Your task to perform on an android device: open app "Google Pay: Save, Pay, Manage" (install if not already installed) Image 0: 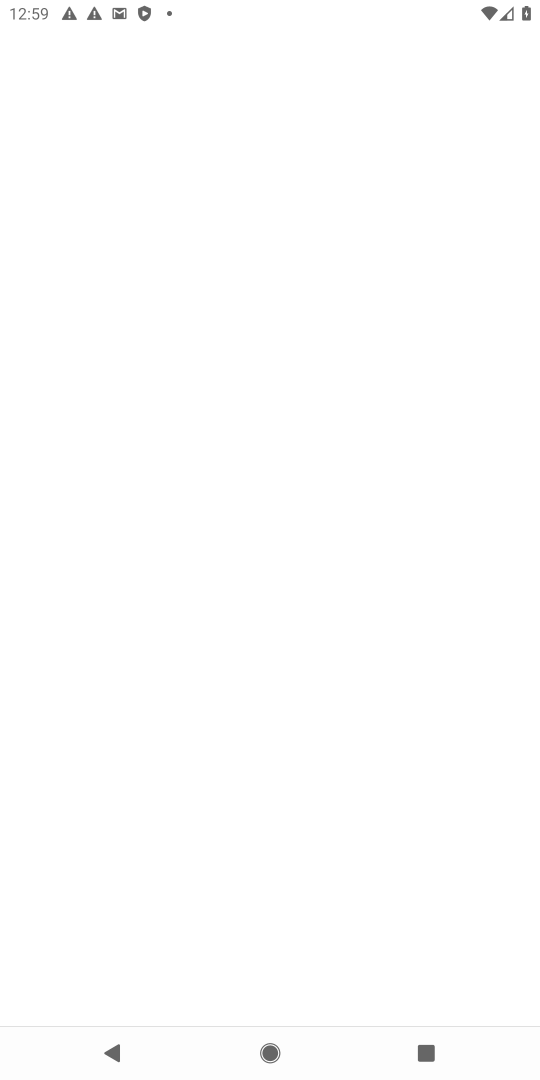
Step 0: press home button
Your task to perform on an android device: open app "Google Pay: Save, Pay, Manage" (install if not already installed) Image 1: 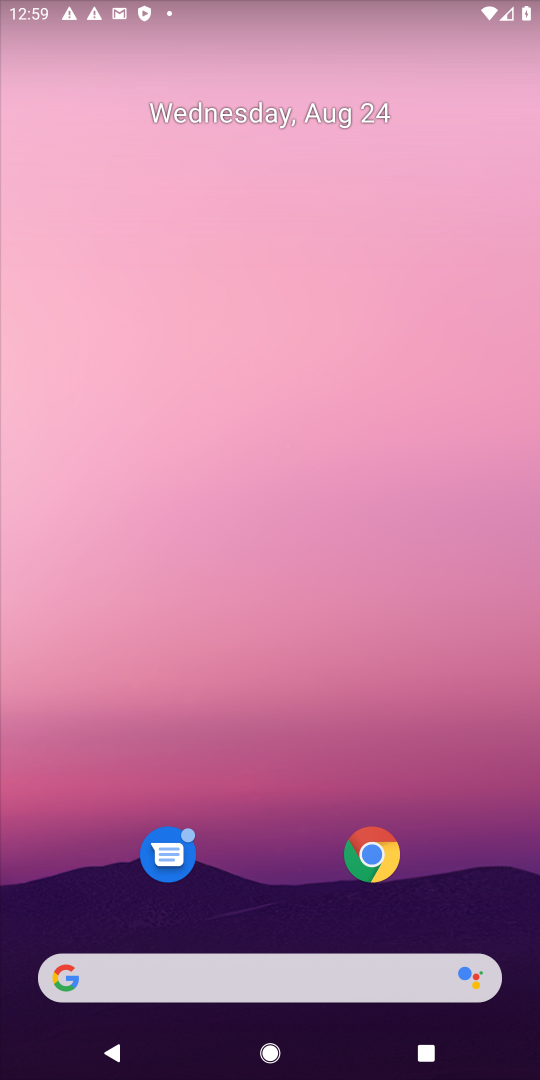
Step 1: drag from (471, 840) to (475, 117)
Your task to perform on an android device: open app "Google Pay: Save, Pay, Manage" (install if not already installed) Image 2: 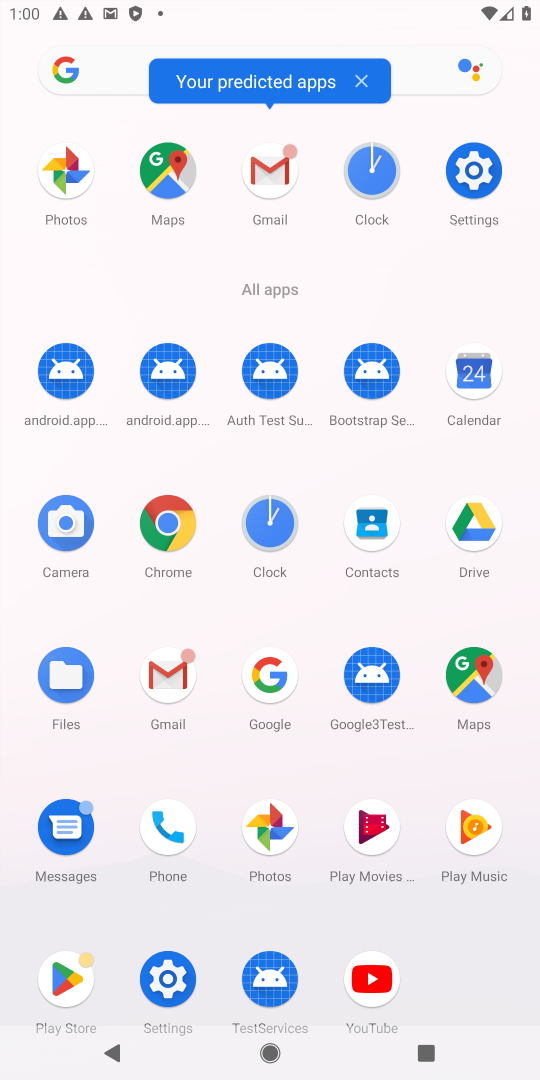
Step 2: click (59, 971)
Your task to perform on an android device: open app "Google Pay: Save, Pay, Manage" (install if not already installed) Image 3: 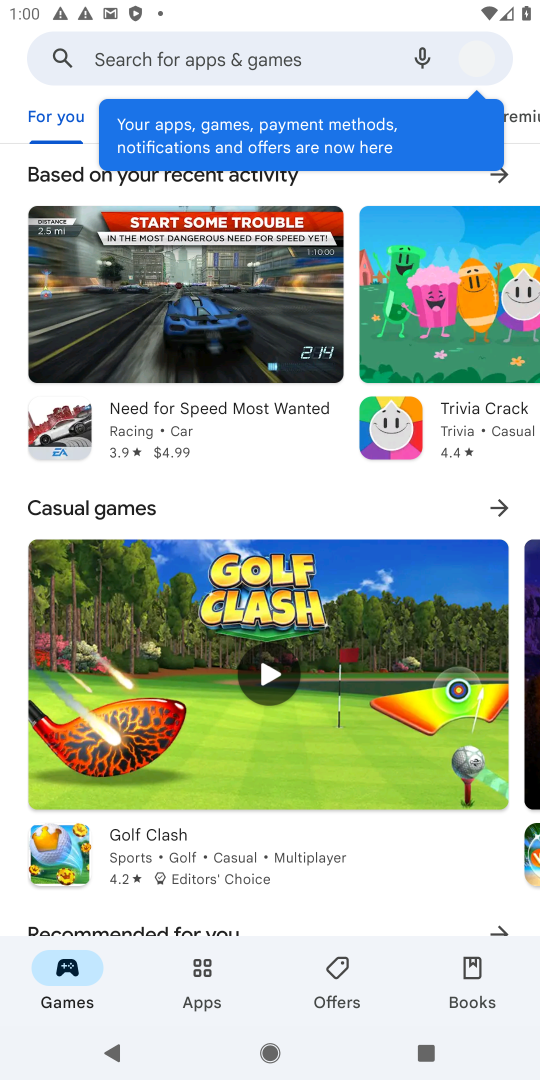
Step 3: click (247, 48)
Your task to perform on an android device: open app "Google Pay: Save, Pay, Manage" (install if not already installed) Image 4: 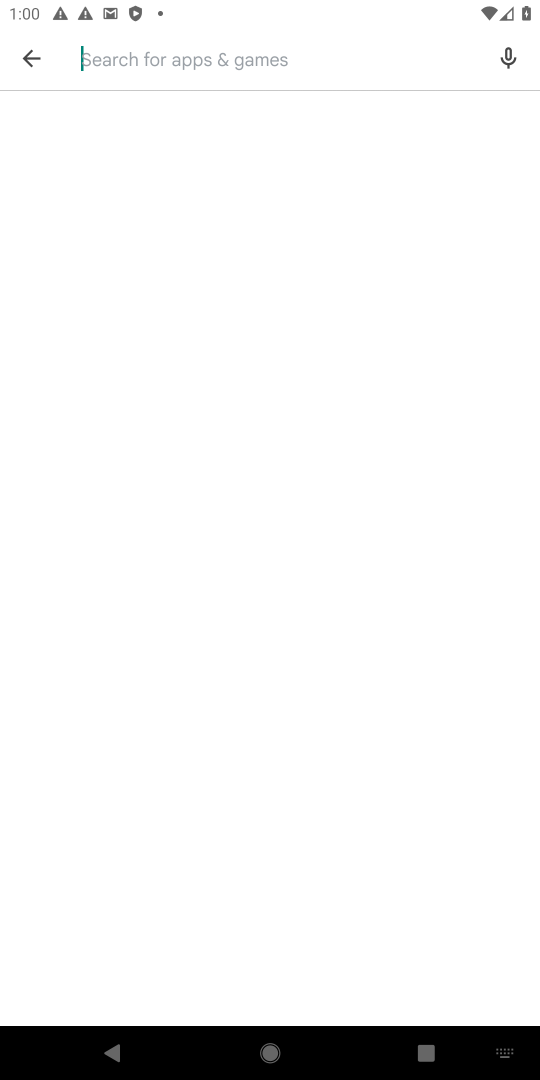
Step 4: type "Google Pay: Save, Pay, Manage"
Your task to perform on an android device: open app "Google Pay: Save, Pay, Manage" (install if not already installed) Image 5: 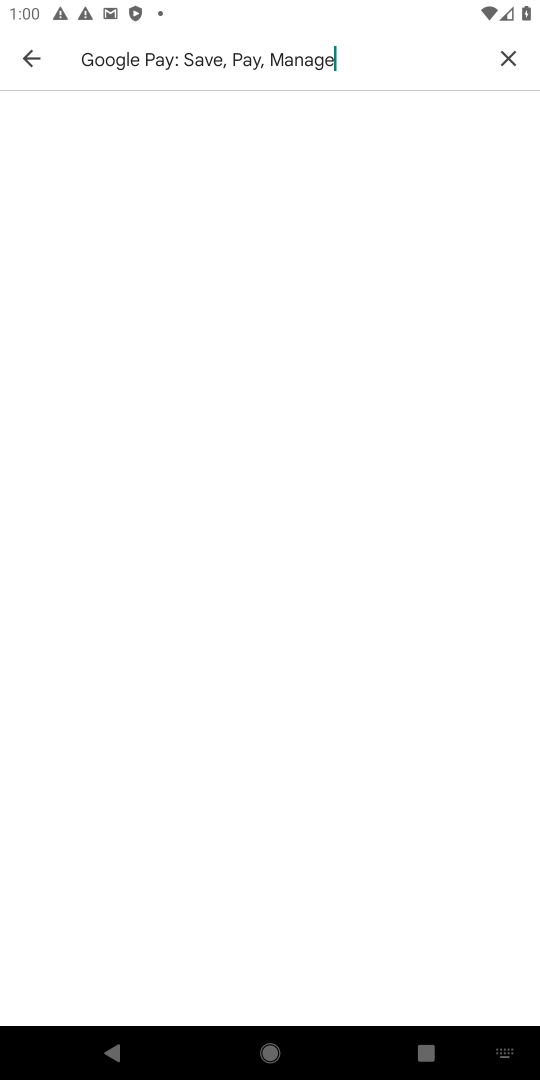
Step 5: press enter
Your task to perform on an android device: open app "Google Pay: Save, Pay, Manage" (install if not already installed) Image 6: 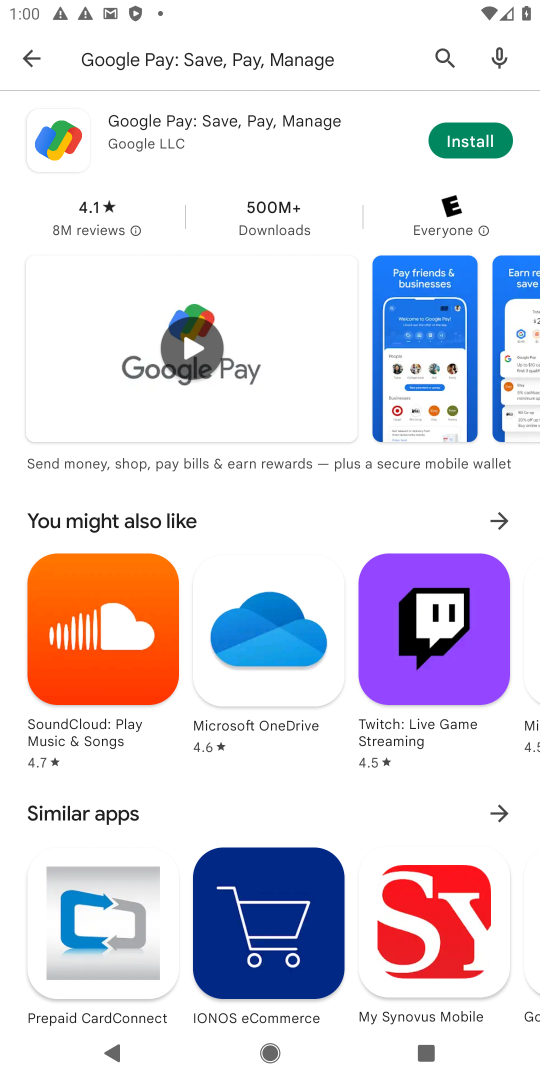
Step 6: click (451, 142)
Your task to perform on an android device: open app "Google Pay: Save, Pay, Manage" (install if not already installed) Image 7: 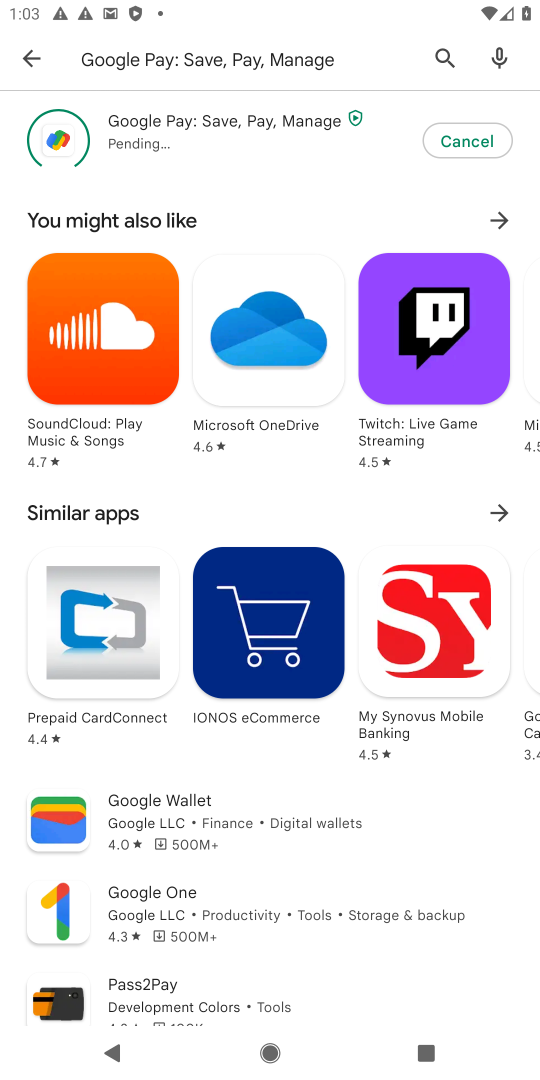
Step 7: task complete